Your task to perform on an android device: Open Google Image 0: 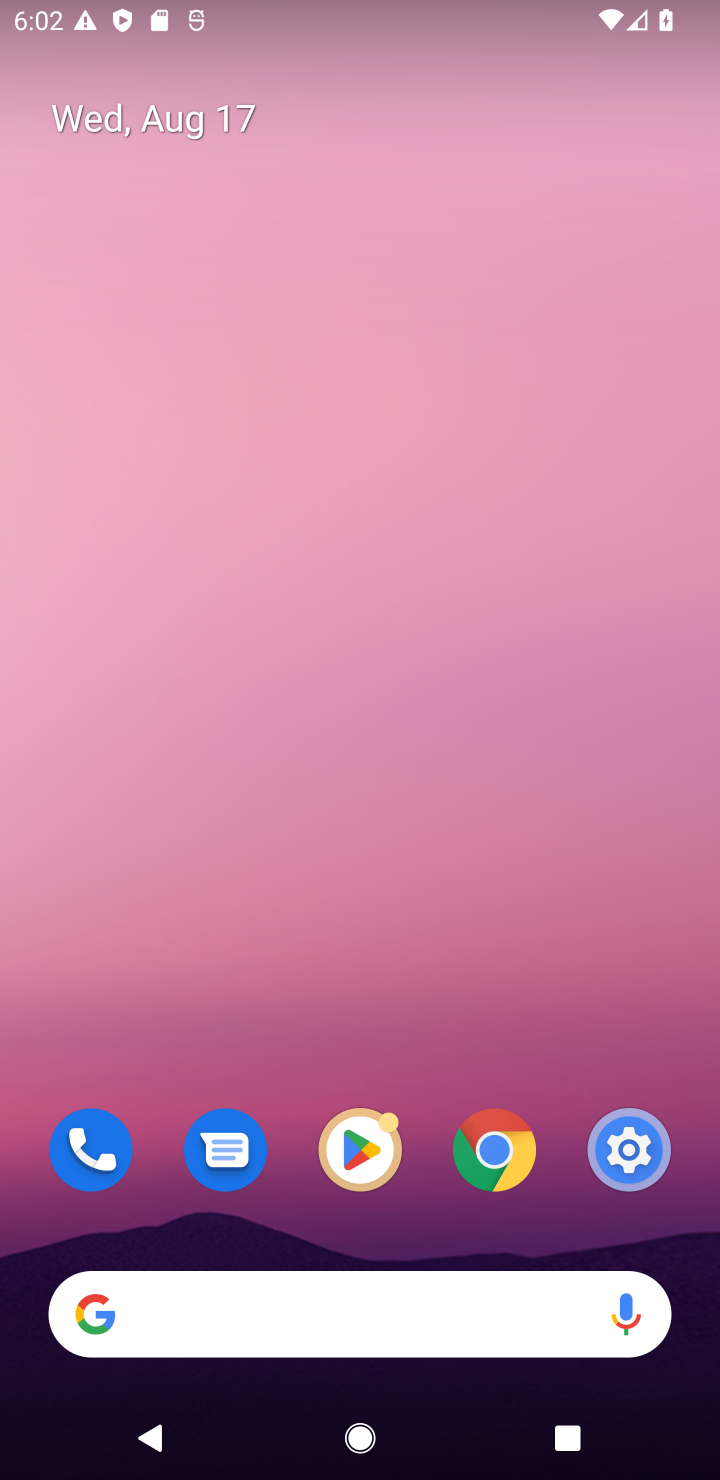
Step 0: drag from (354, 1284) to (391, 415)
Your task to perform on an android device: Open Google Image 1: 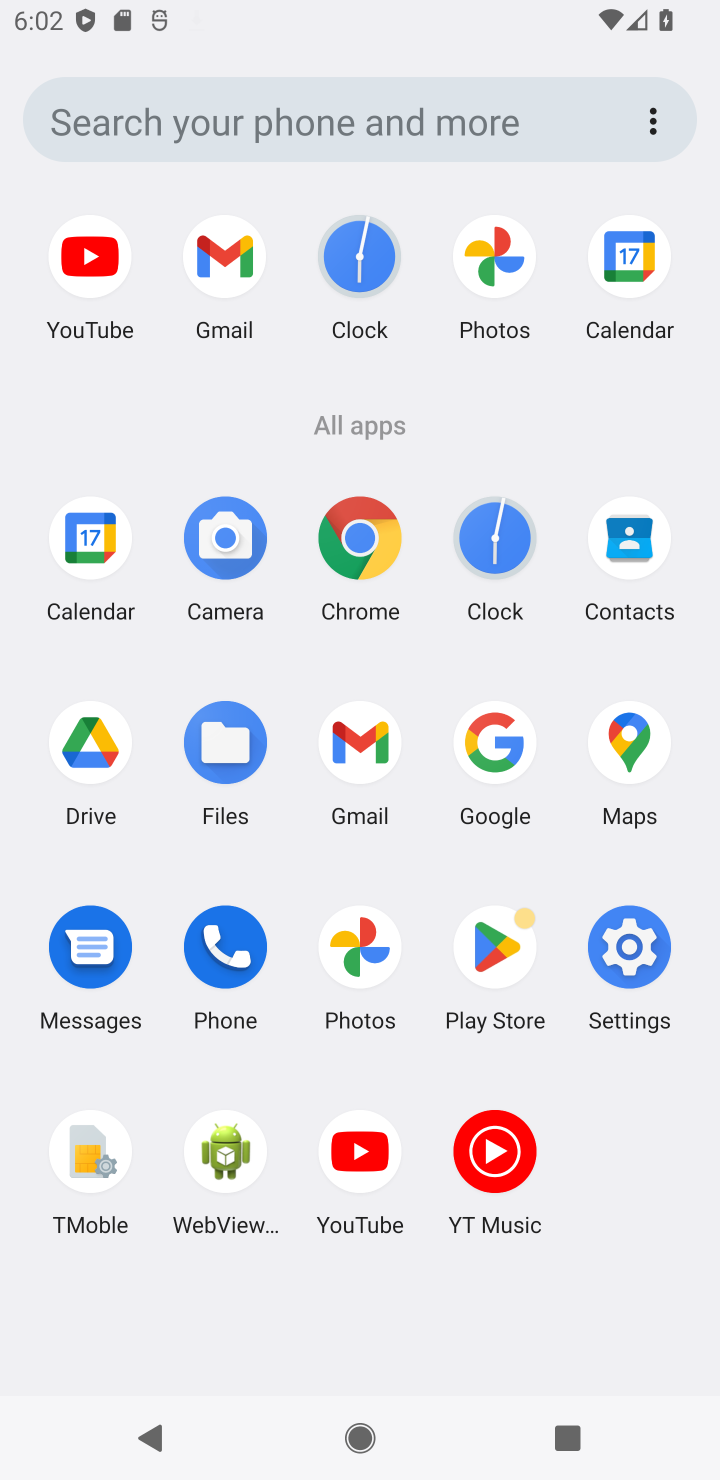
Step 1: click (501, 745)
Your task to perform on an android device: Open Google Image 2: 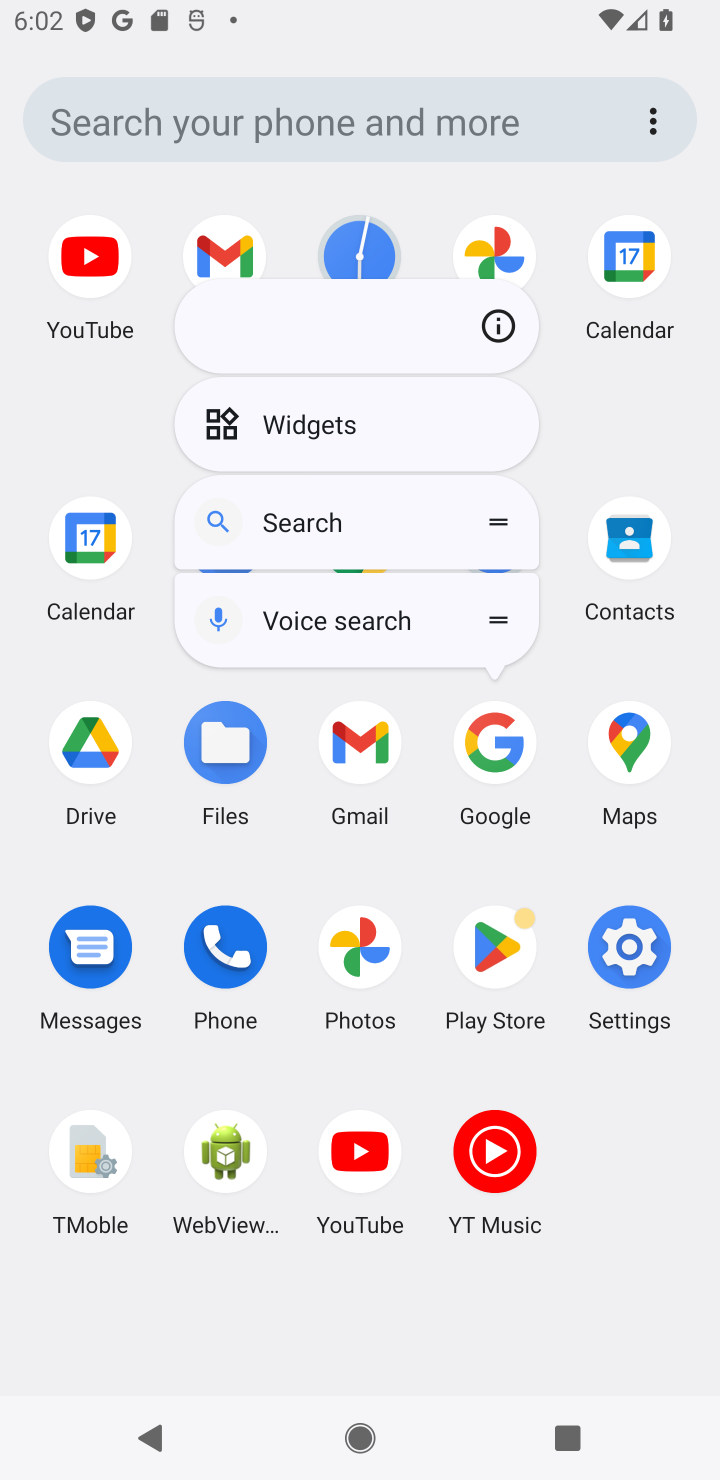
Step 2: click (487, 757)
Your task to perform on an android device: Open Google Image 3: 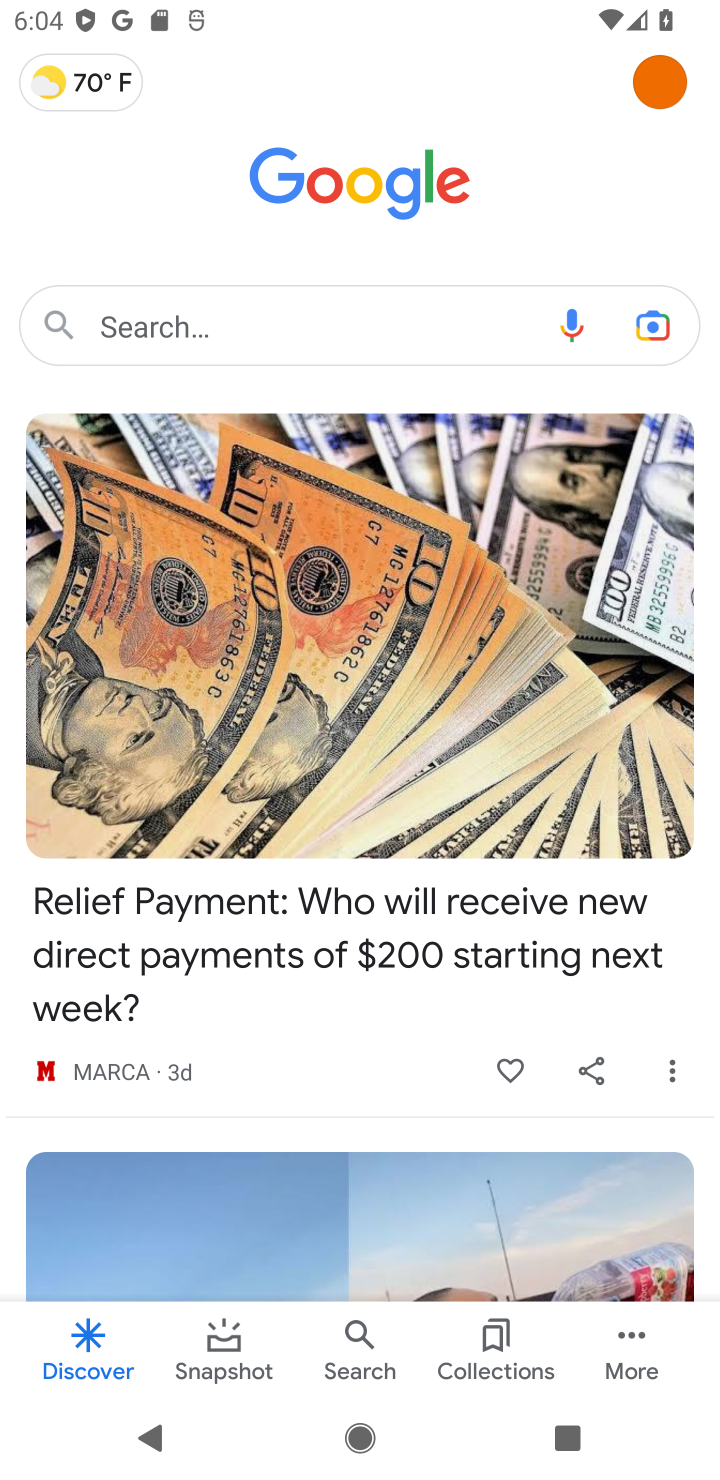
Step 3: task complete